Your task to perform on an android device: Open display settings Image 0: 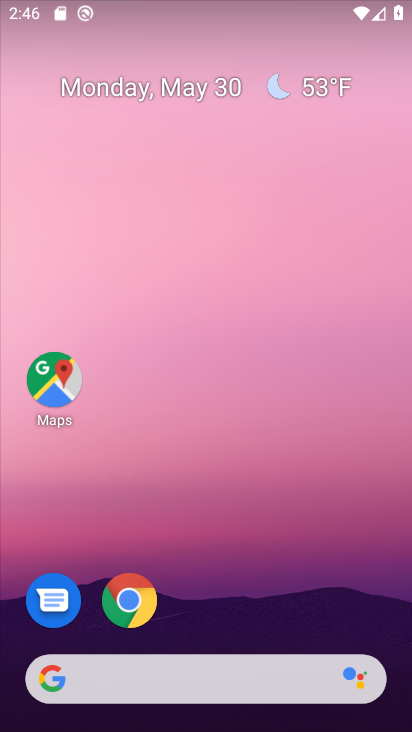
Step 0: drag from (347, 579) to (408, 47)
Your task to perform on an android device: Open display settings Image 1: 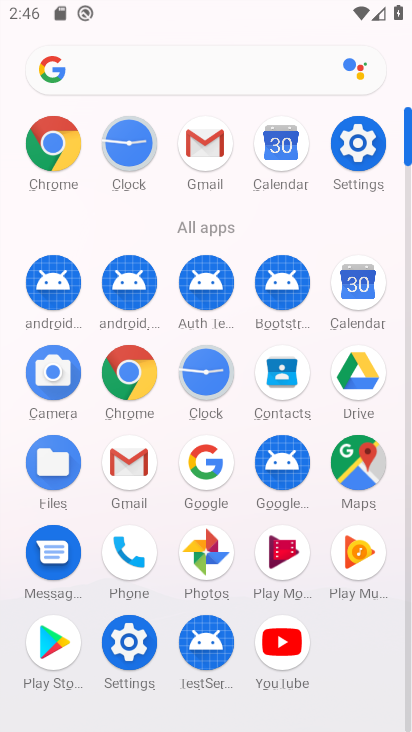
Step 1: click (369, 153)
Your task to perform on an android device: Open display settings Image 2: 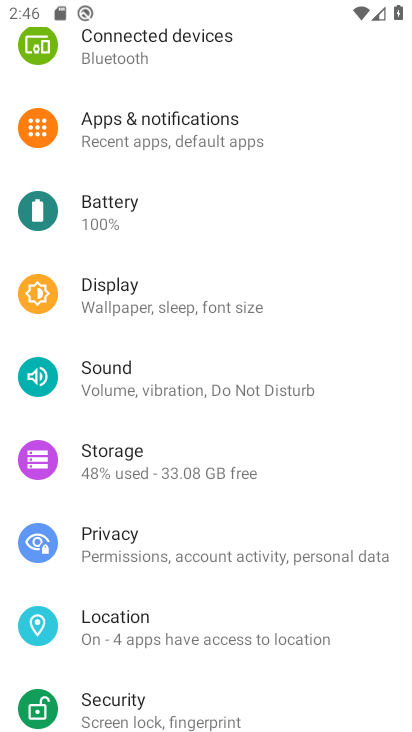
Step 2: drag from (282, 146) to (283, 725)
Your task to perform on an android device: Open display settings Image 3: 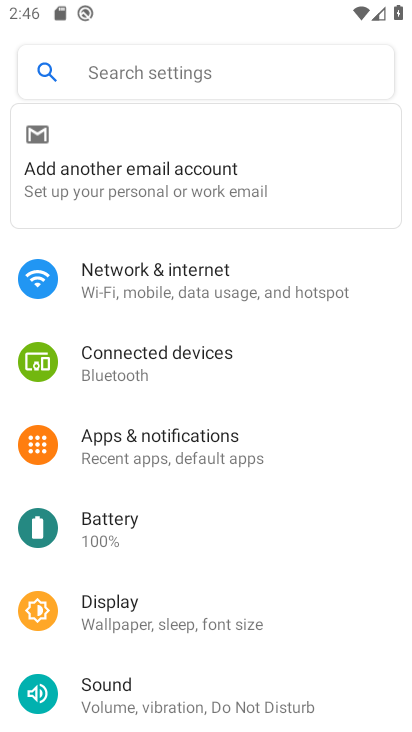
Step 3: drag from (291, 245) to (261, 729)
Your task to perform on an android device: Open display settings Image 4: 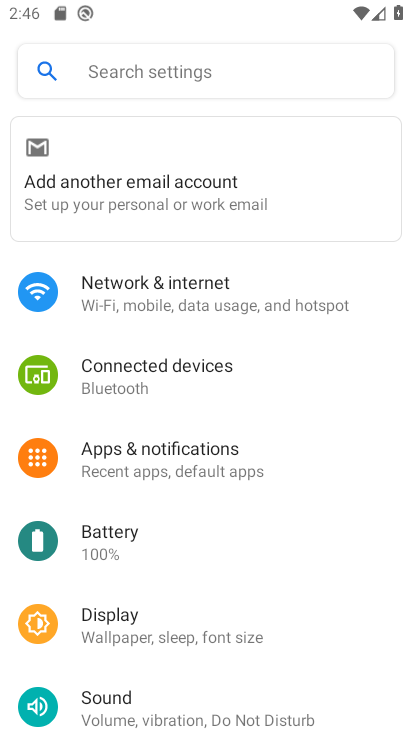
Step 4: click (108, 636)
Your task to perform on an android device: Open display settings Image 5: 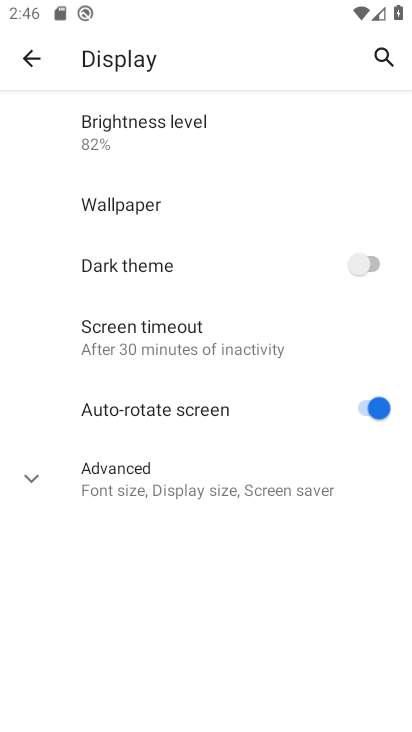
Step 5: task complete